Your task to perform on an android device: move a message to another label in the gmail app Image 0: 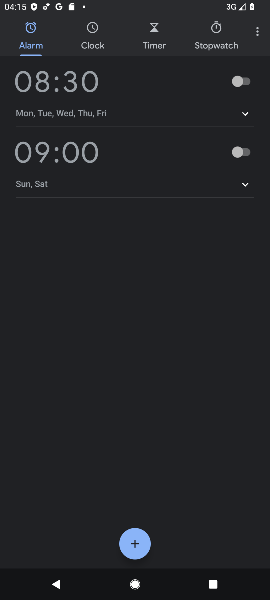
Step 0: press home button
Your task to perform on an android device: move a message to another label in the gmail app Image 1: 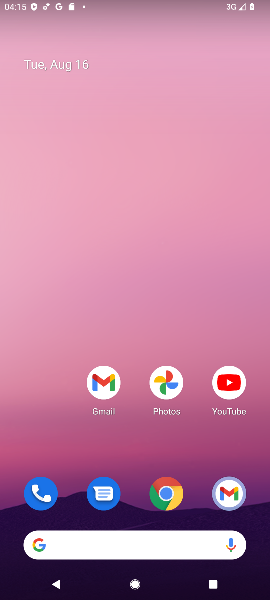
Step 1: drag from (68, 478) to (104, 98)
Your task to perform on an android device: move a message to another label in the gmail app Image 2: 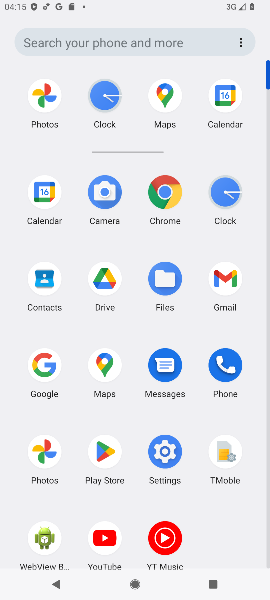
Step 2: click (218, 273)
Your task to perform on an android device: move a message to another label in the gmail app Image 3: 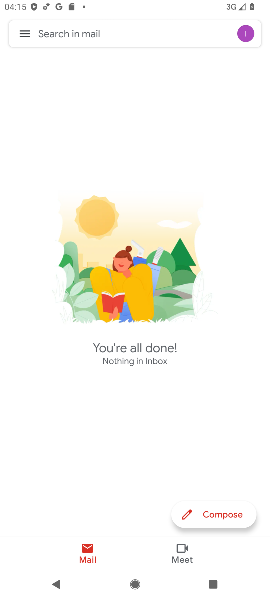
Step 3: click (25, 31)
Your task to perform on an android device: move a message to another label in the gmail app Image 4: 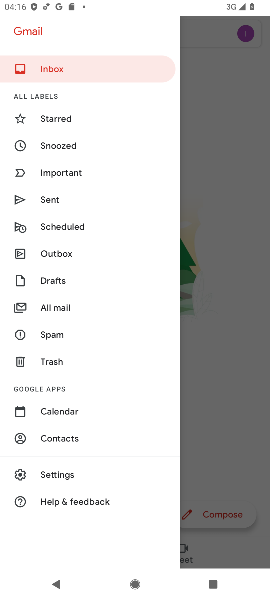
Step 4: click (69, 305)
Your task to perform on an android device: move a message to another label in the gmail app Image 5: 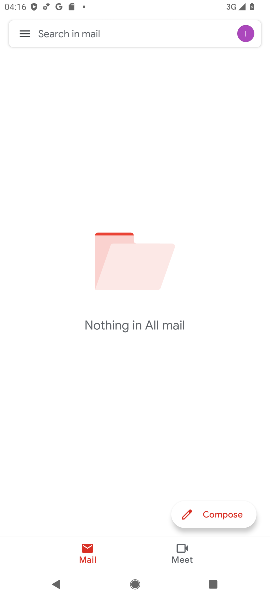
Step 5: task complete